Your task to perform on an android device: Go to privacy settings Image 0: 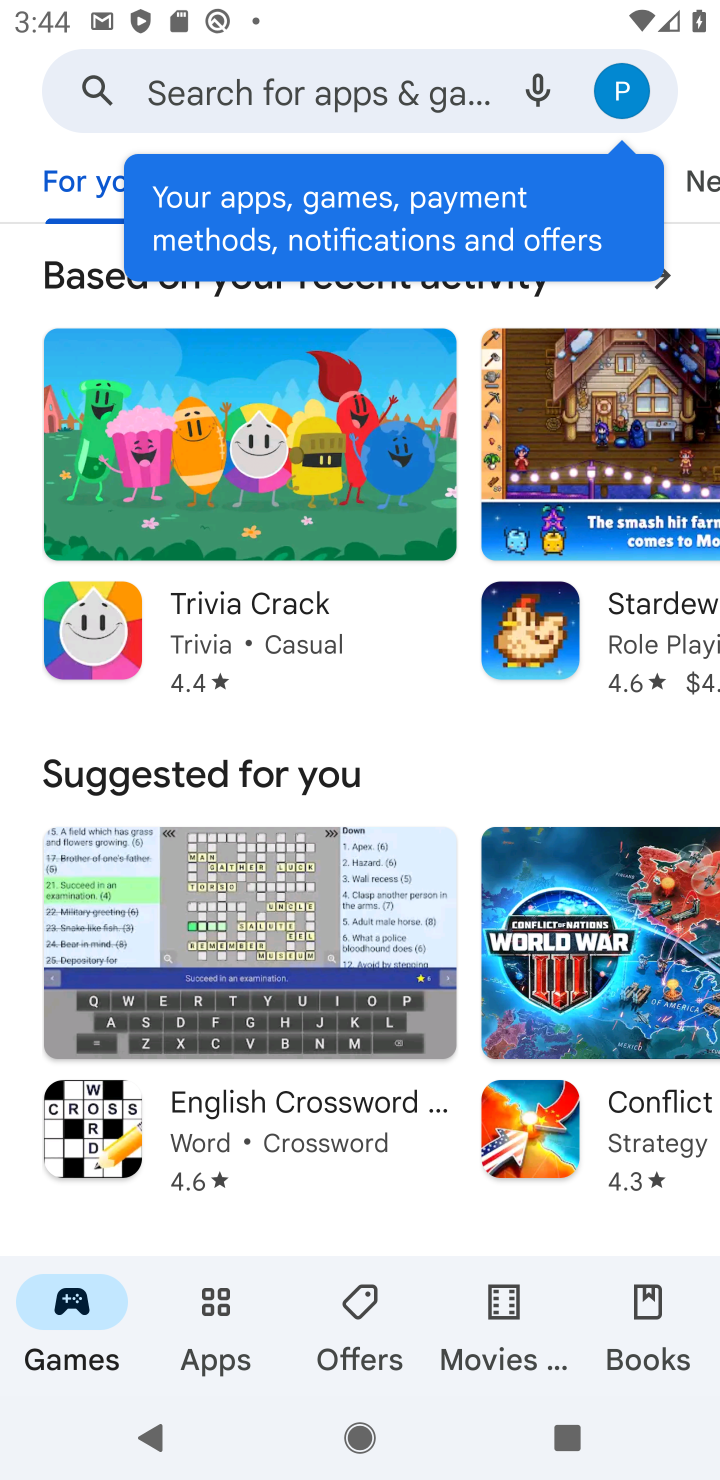
Step 0: press home button
Your task to perform on an android device: Go to privacy settings Image 1: 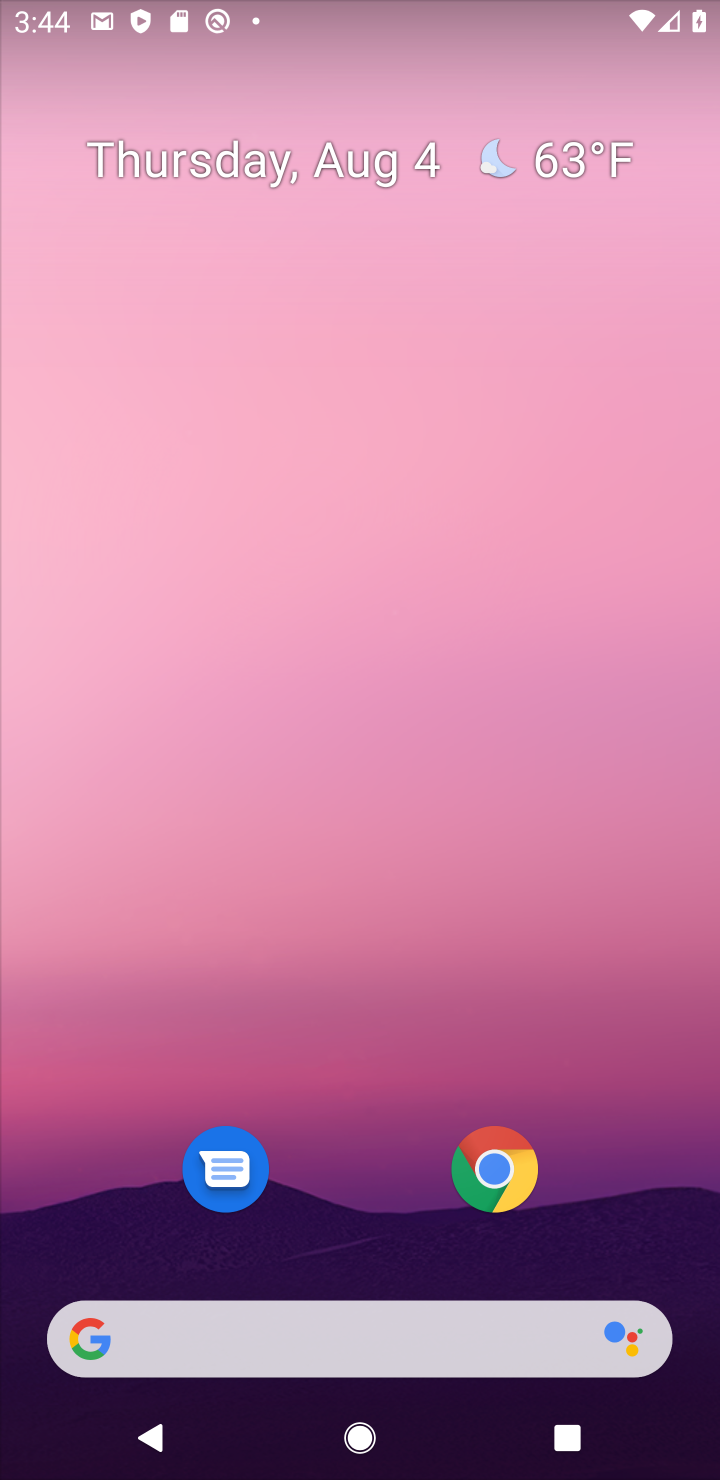
Step 1: drag from (333, 530) to (335, 310)
Your task to perform on an android device: Go to privacy settings Image 2: 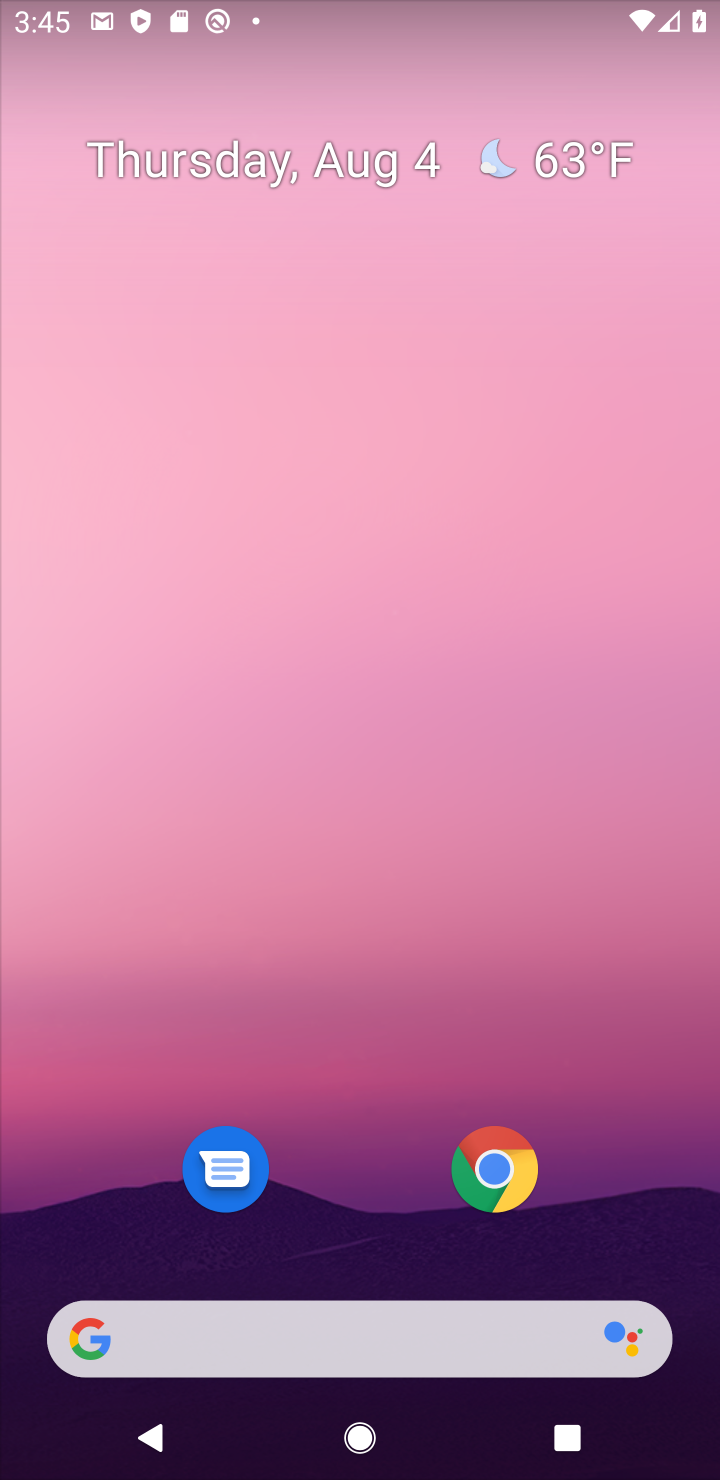
Step 2: drag from (395, 1256) to (295, 22)
Your task to perform on an android device: Go to privacy settings Image 3: 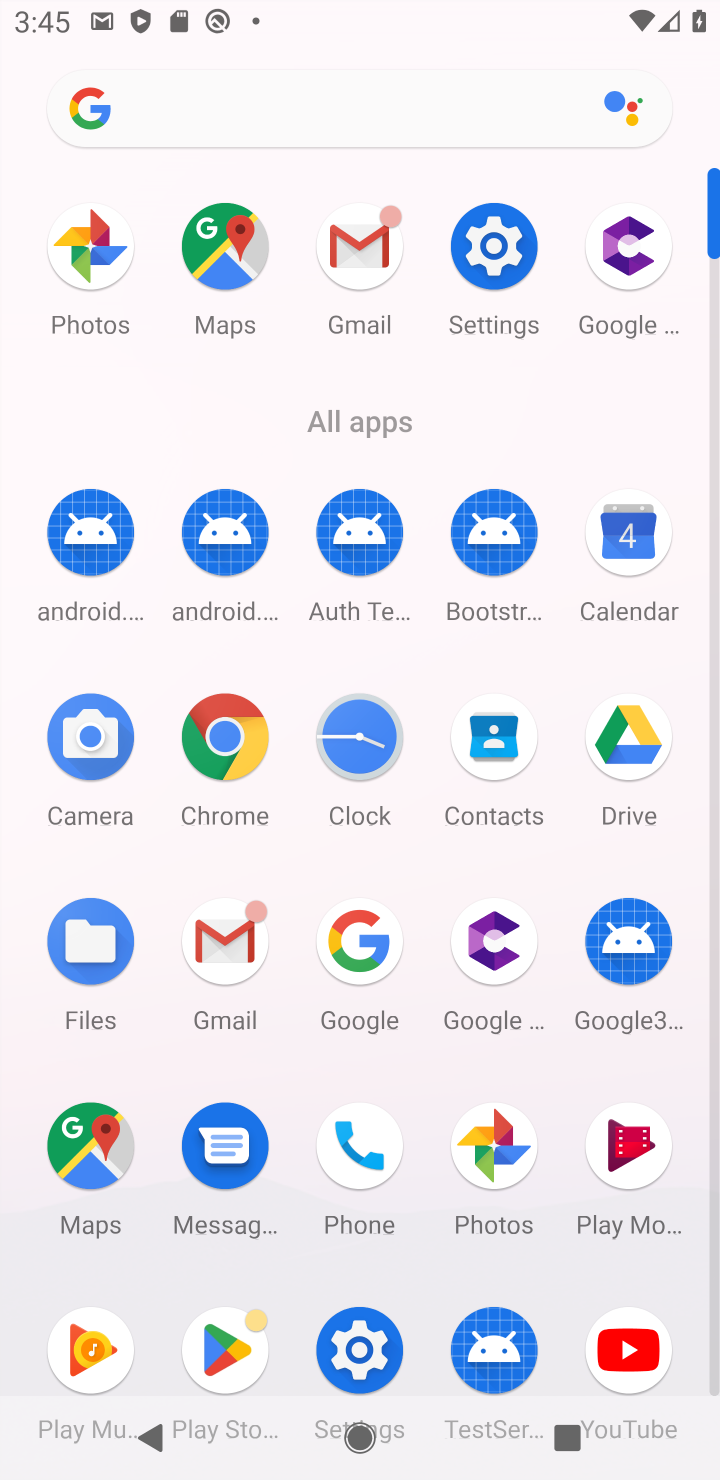
Step 3: click (494, 298)
Your task to perform on an android device: Go to privacy settings Image 4: 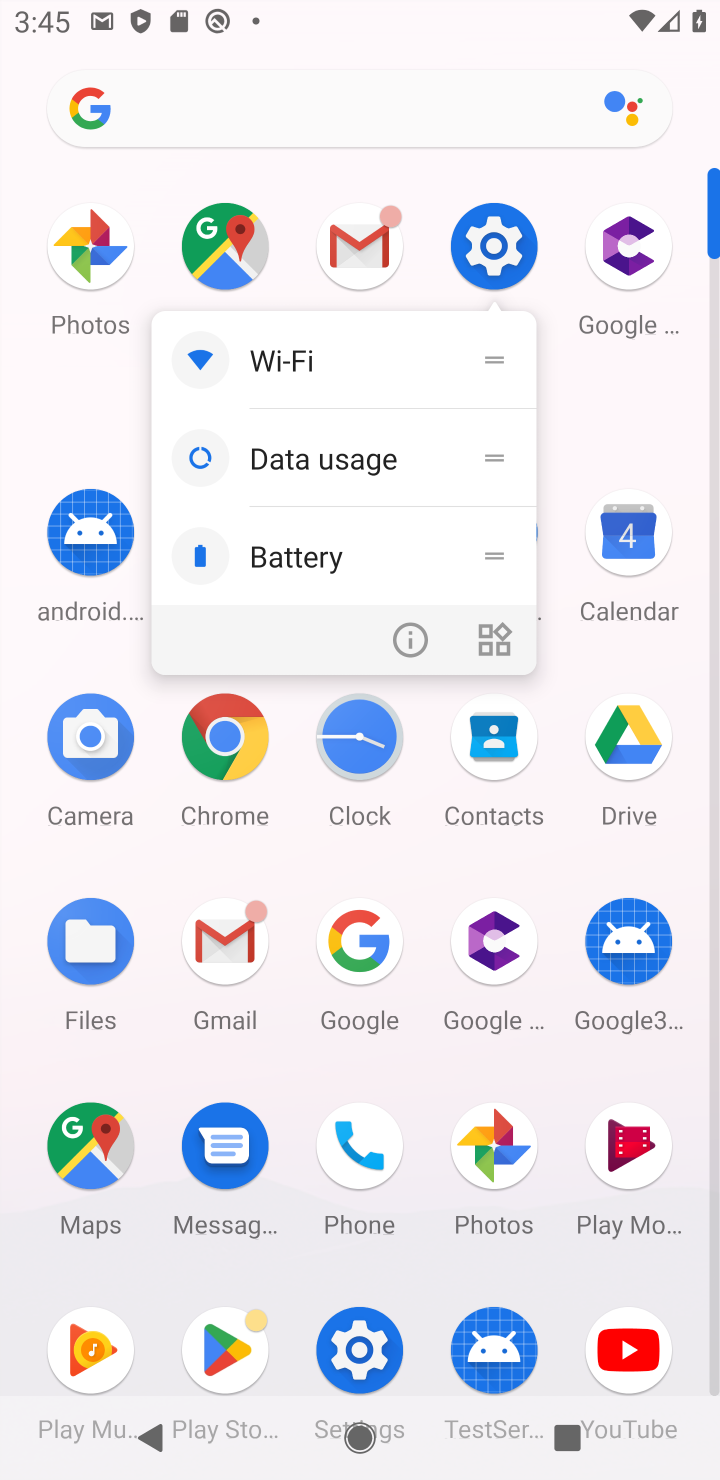
Step 4: click (496, 240)
Your task to perform on an android device: Go to privacy settings Image 5: 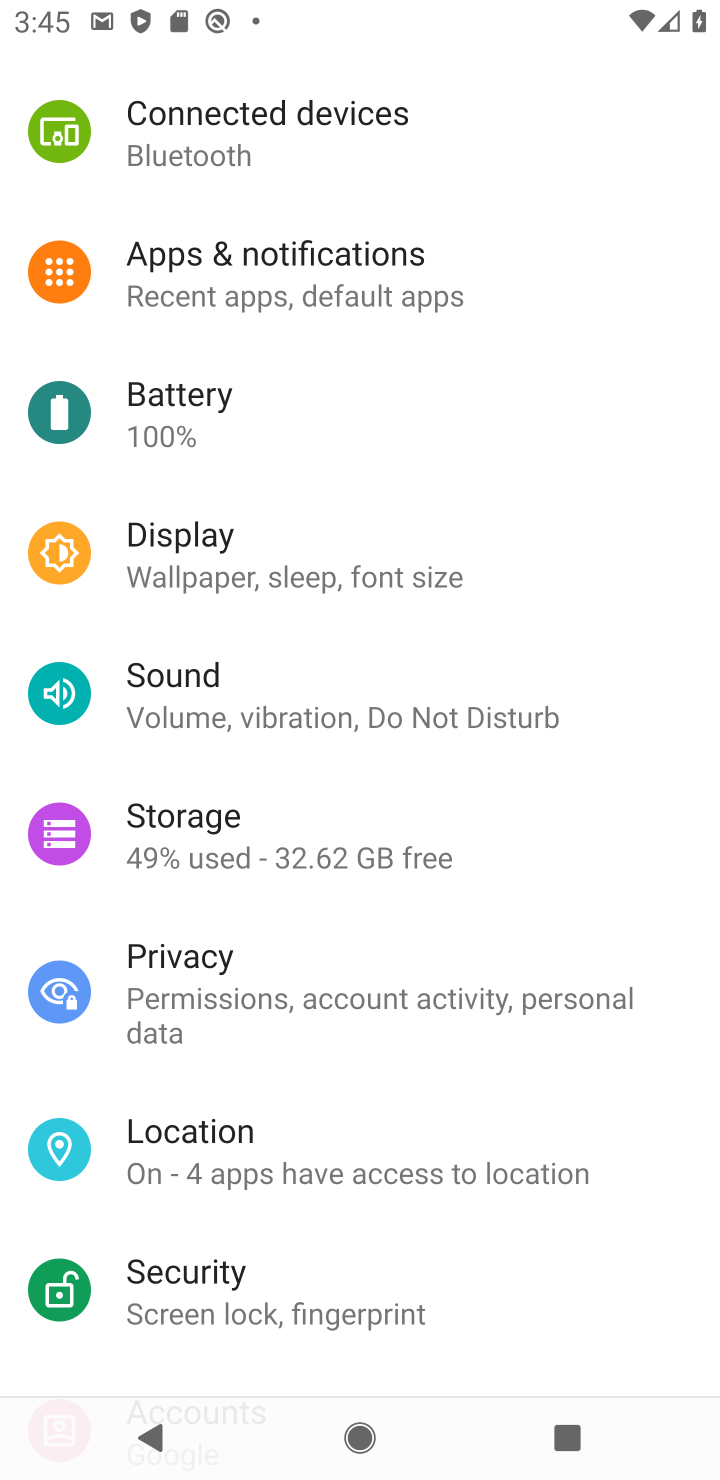
Step 5: drag from (475, 429) to (527, 1014)
Your task to perform on an android device: Go to privacy settings Image 6: 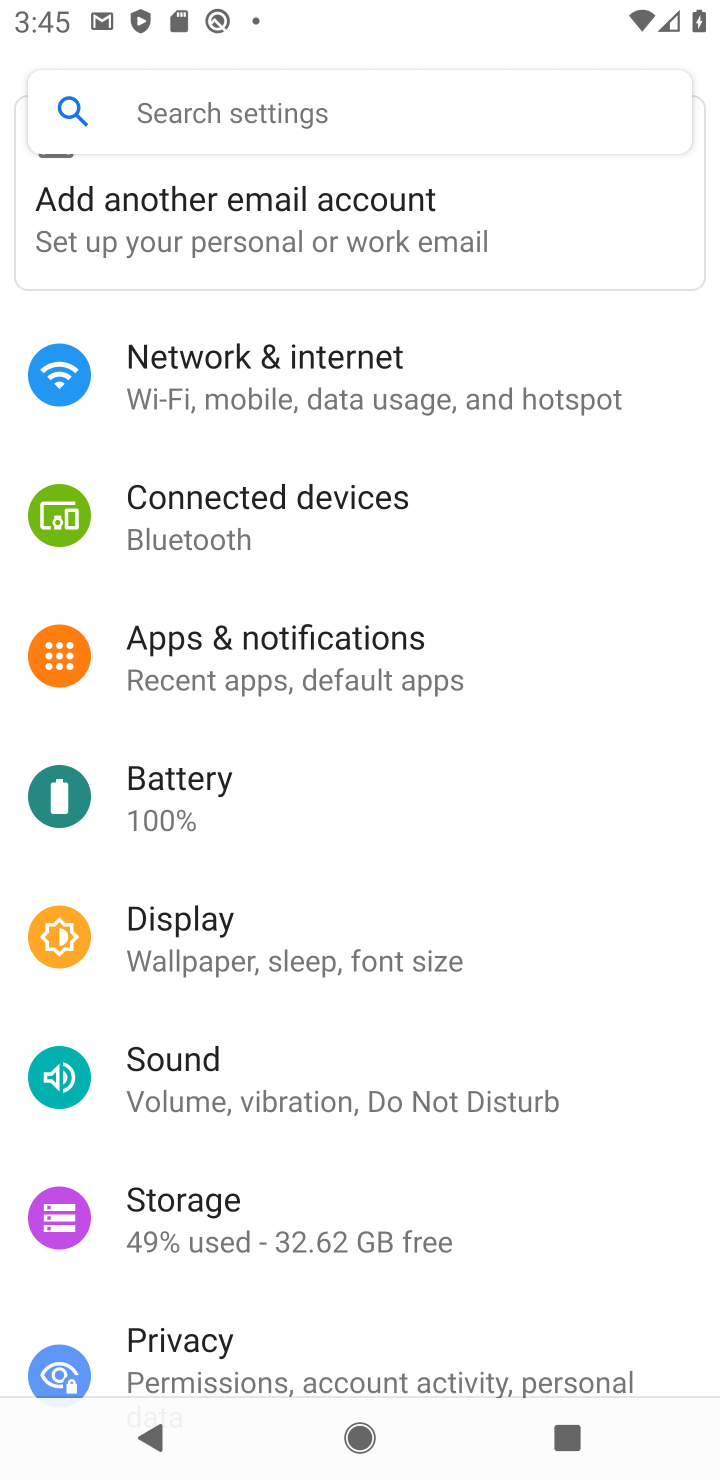
Step 6: click (229, 1347)
Your task to perform on an android device: Go to privacy settings Image 7: 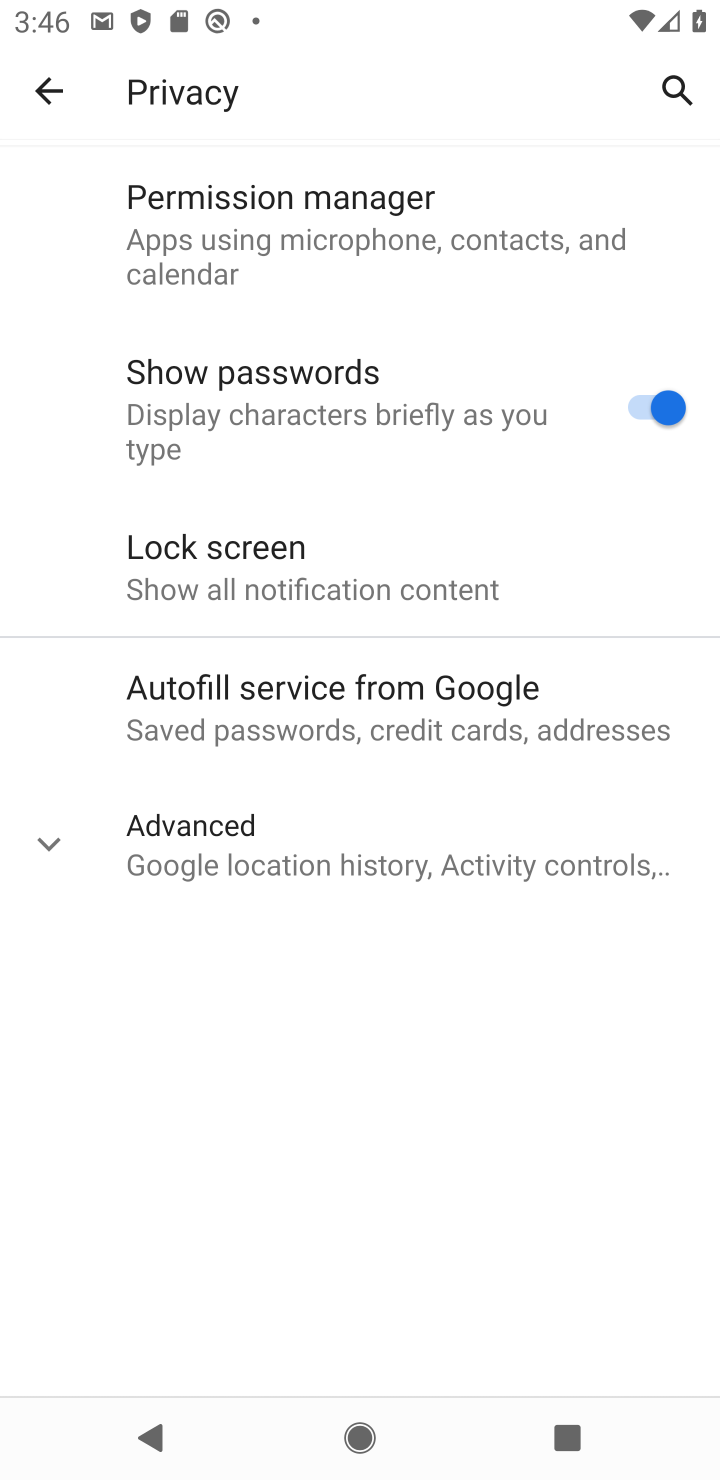
Step 7: task complete